Your task to perform on an android device: Open Amazon Image 0: 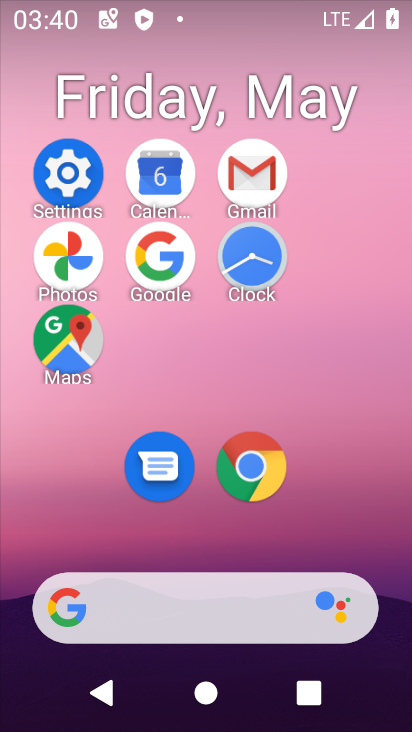
Step 0: click (240, 464)
Your task to perform on an android device: Open Amazon Image 1: 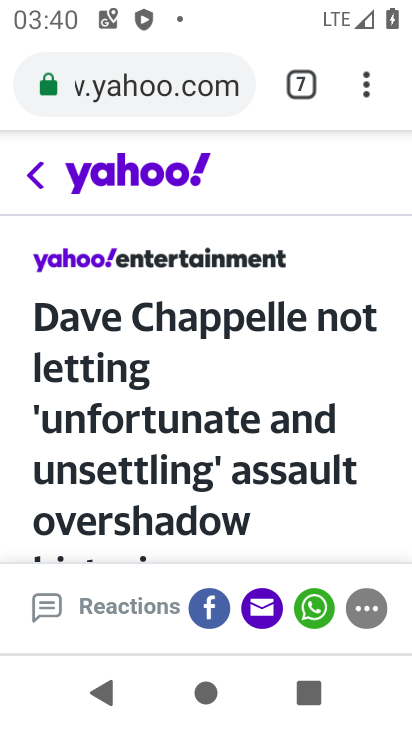
Step 1: click (314, 88)
Your task to perform on an android device: Open Amazon Image 2: 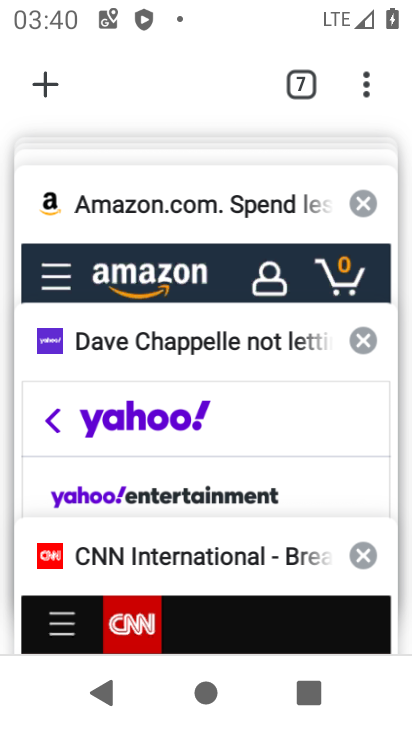
Step 2: click (165, 197)
Your task to perform on an android device: Open Amazon Image 3: 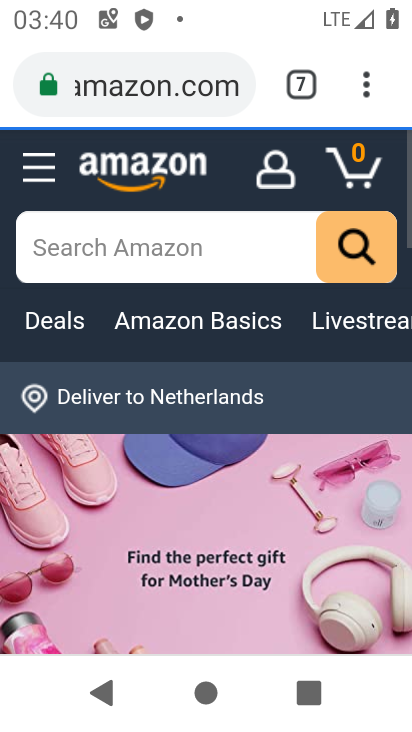
Step 3: task complete